Your task to perform on an android device: Go to Wikipedia Image 0: 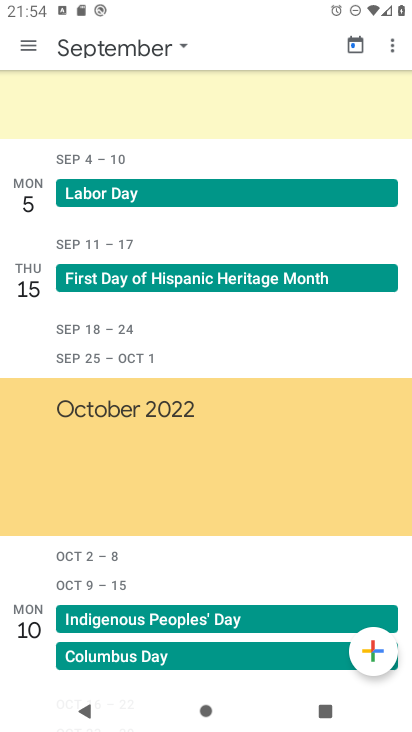
Step 0: press home button
Your task to perform on an android device: Go to Wikipedia Image 1: 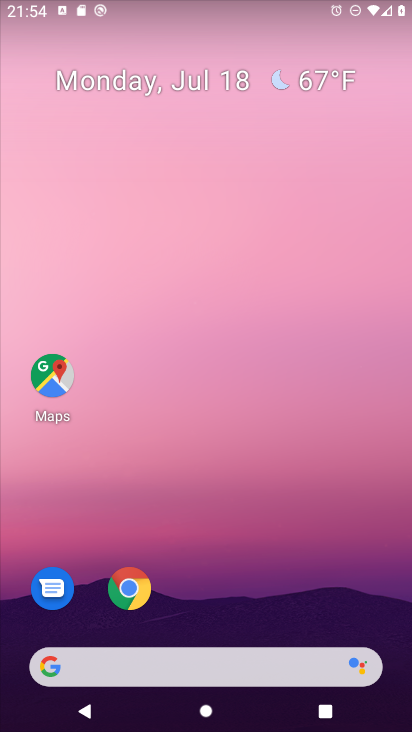
Step 1: click (127, 589)
Your task to perform on an android device: Go to Wikipedia Image 2: 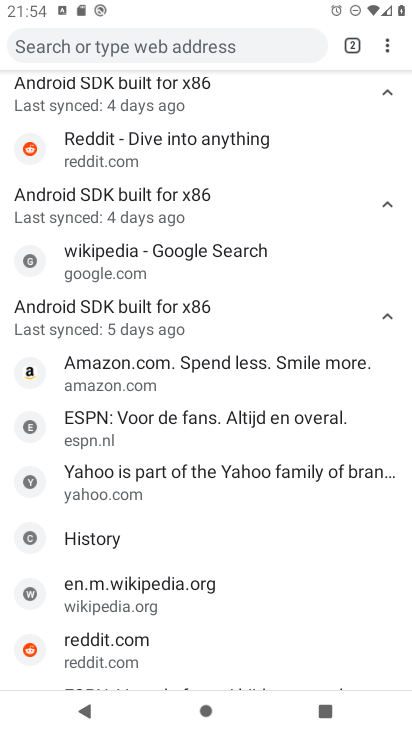
Step 2: click (117, 52)
Your task to perform on an android device: Go to Wikipedia Image 3: 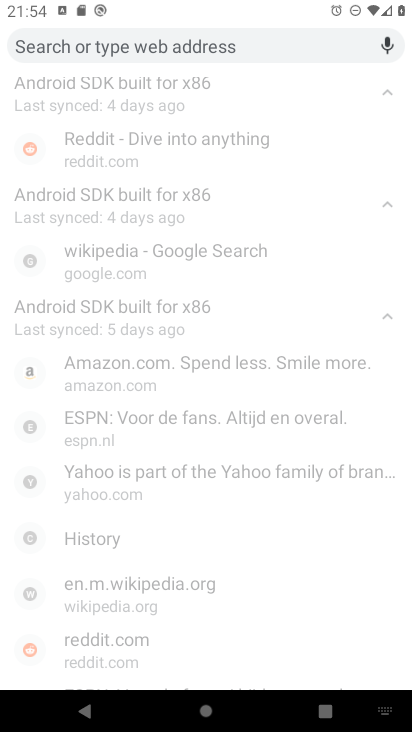
Step 3: type "wikipedia"
Your task to perform on an android device: Go to Wikipedia Image 4: 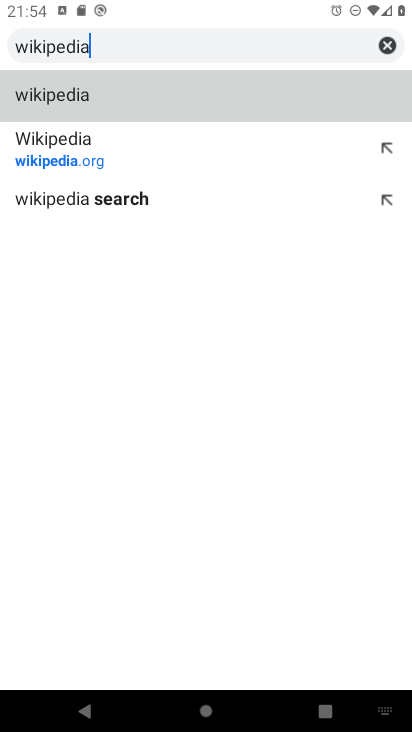
Step 4: click (43, 96)
Your task to perform on an android device: Go to Wikipedia Image 5: 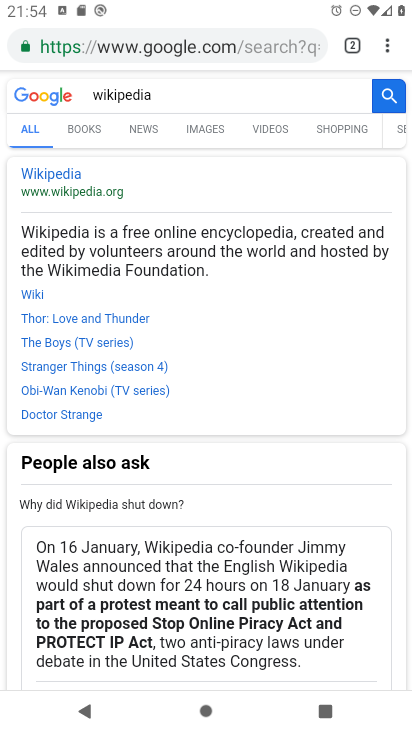
Step 5: click (54, 176)
Your task to perform on an android device: Go to Wikipedia Image 6: 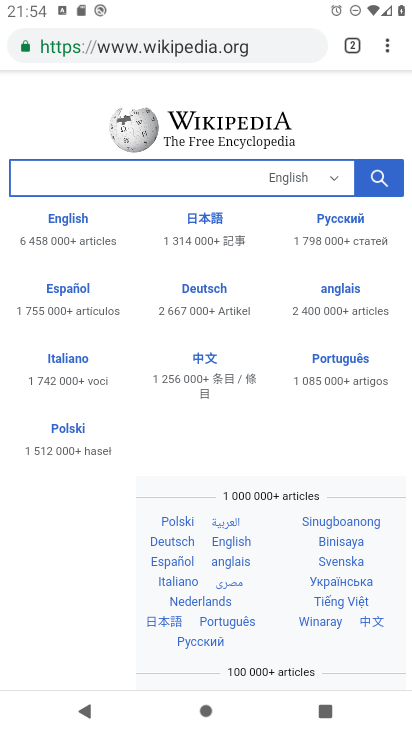
Step 6: task complete